Your task to perform on an android device: Go to privacy settings Image 0: 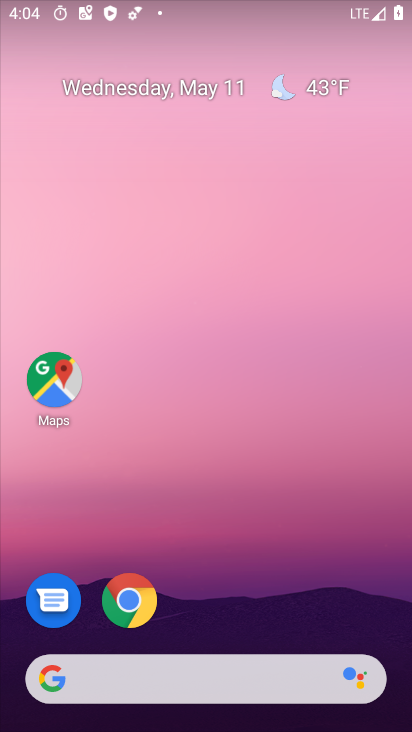
Step 0: drag from (317, 642) to (326, 0)
Your task to perform on an android device: Go to privacy settings Image 1: 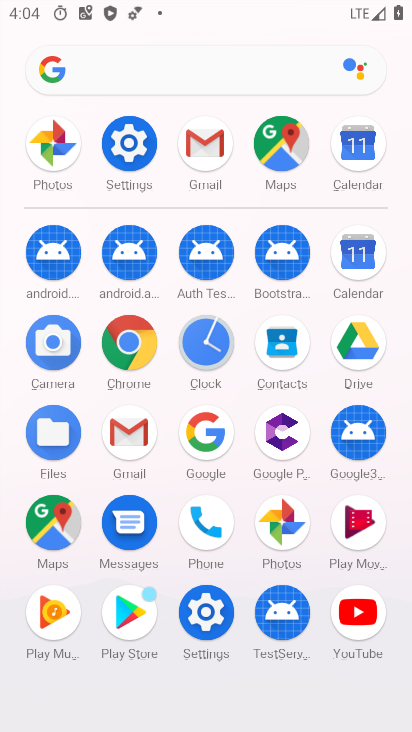
Step 1: click (150, 144)
Your task to perform on an android device: Go to privacy settings Image 2: 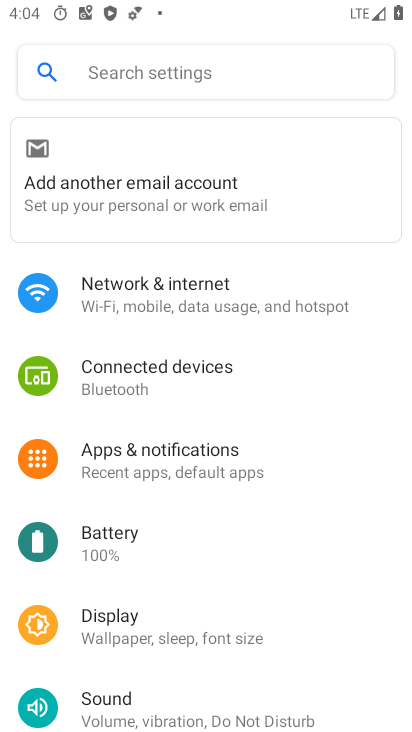
Step 2: drag from (316, 589) to (320, 203)
Your task to perform on an android device: Go to privacy settings Image 3: 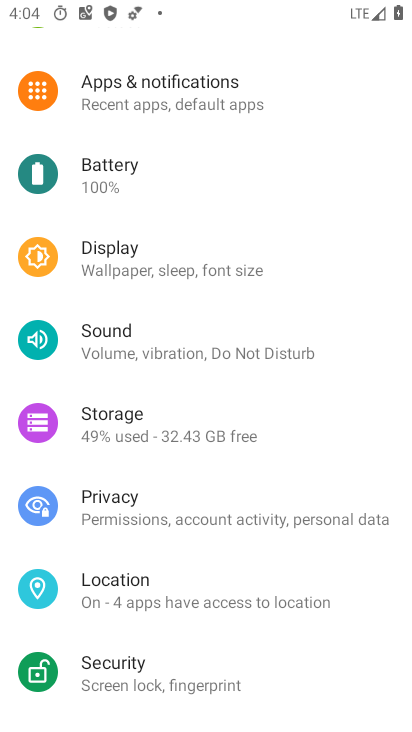
Step 3: click (122, 505)
Your task to perform on an android device: Go to privacy settings Image 4: 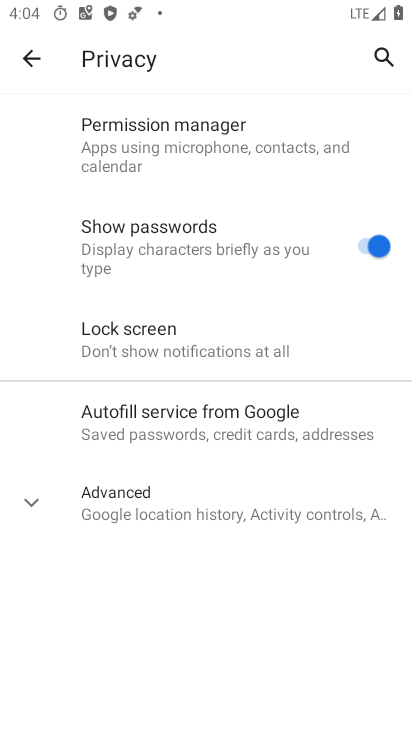
Step 4: task complete